Your task to perform on an android device: toggle notification dots Image 0: 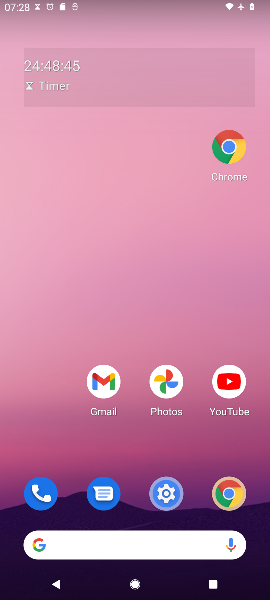
Step 0: press home button
Your task to perform on an android device: toggle notification dots Image 1: 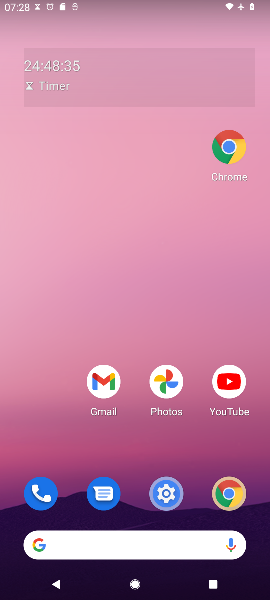
Step 1: click (159, 493)
Your task to perform on an android device: toggle notification dots Image 2: 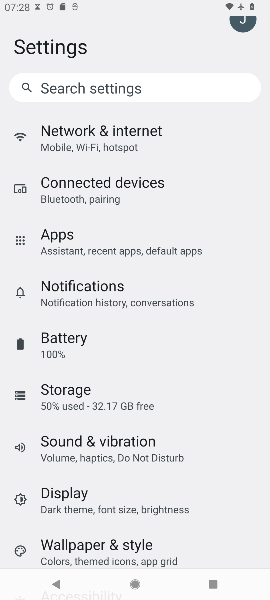
Step 2: click (77, 291)
Your task to perform on an android device: toggle notification dots Image 3: 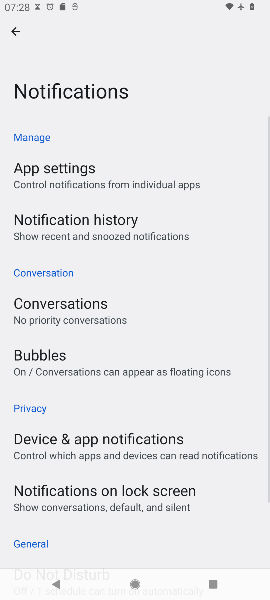
Step 3: drag from (217, 505) to (200, 139)
Your task to perform on an android device: toggle notification dots Image 4: 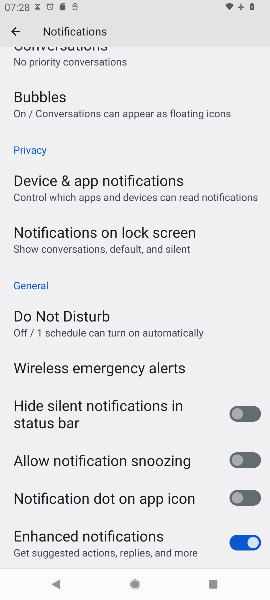
Step 4: click (235, 498)
Your task to perform on an android device: toggle notification dots Image 5: 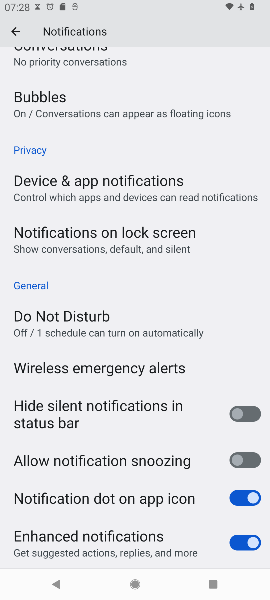
Step 5: task complete